Your task to perform on an android device: turn off notifications settings in the gmail app Image 0: 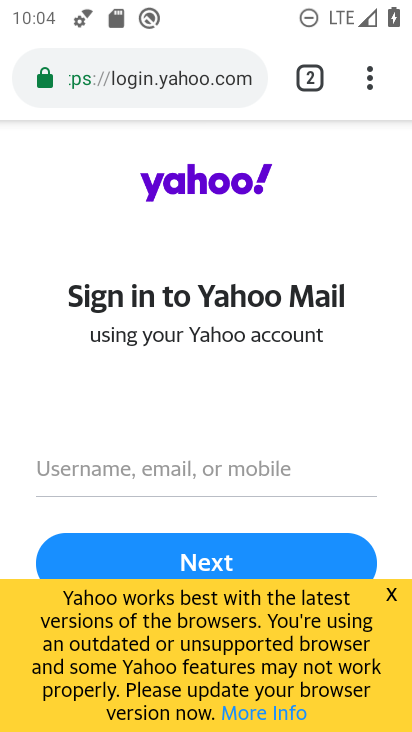
Step 0: press home button
Your task to perform on an android device: turn off notifications settings in the gmail app Image 1: 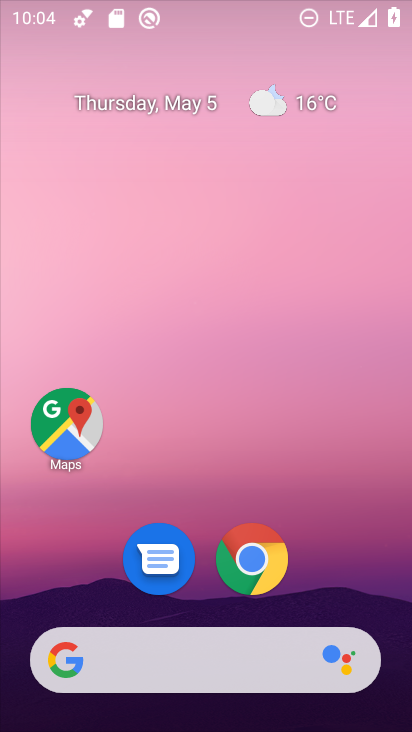
Step 1: drag from (391, 631) to (266, 76)
Your task to perform on an android device: turn off notifications settings in the gmail app Image 2: 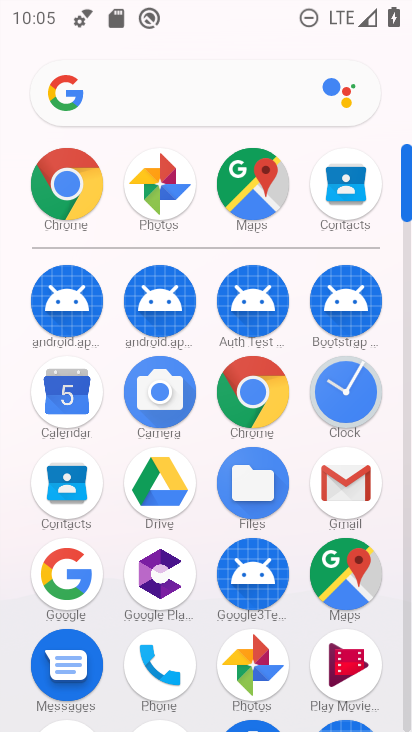
Step 2: click (371, 485)
Your task to perform on an android device: turn off notifications settings in the gmail app Image 3: 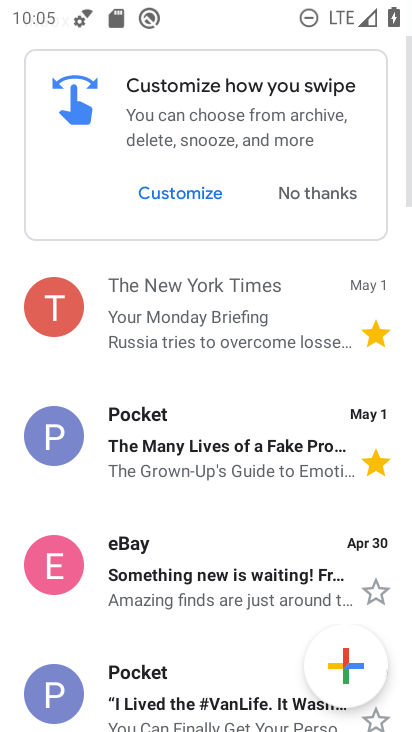
Step 3: drag from (130, 124) to (101, 621)
Your task to perform on an android device: turn off notifications settings in the gmail app Image 4: 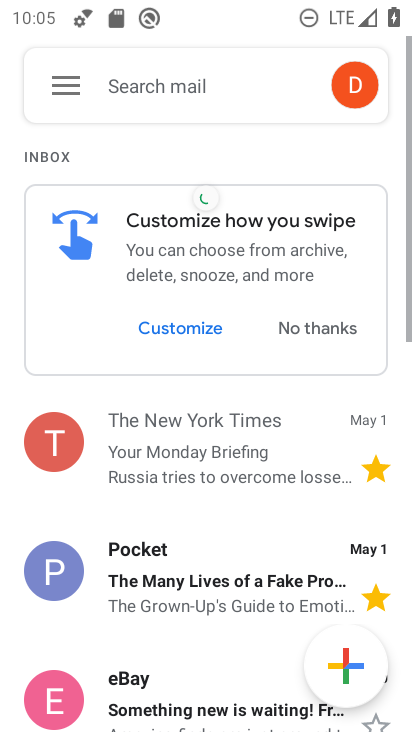
Step 4: click (52, 80)
Your task to perform on an android device: turn off notifications settings in the gmail app Image 5: 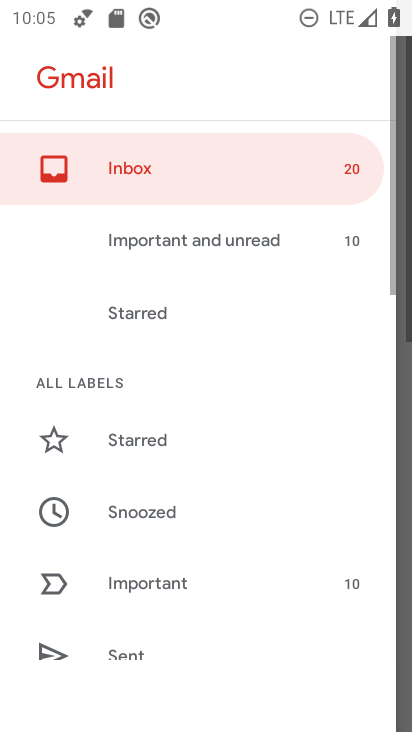
Step 5: drag from (166, 604) to (214, 71)
Your task to perform on an android device: turn off notifications settings in the gmail app Image 6: 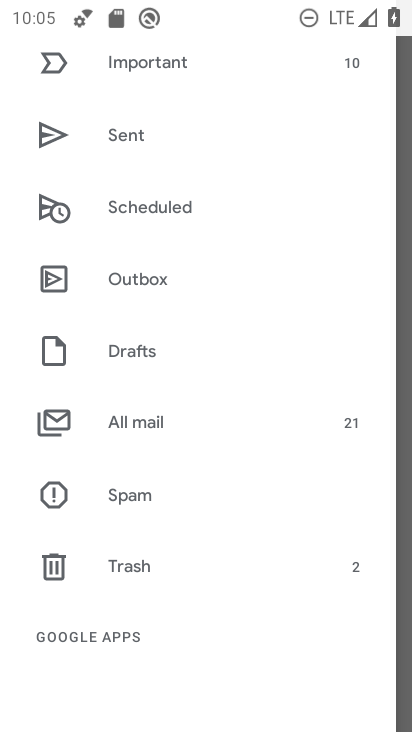
Step 6: drag from (160, 580) to (218, 93)
Your task to perform on an android device: turn off notifications settings in the gmail app Image 7: 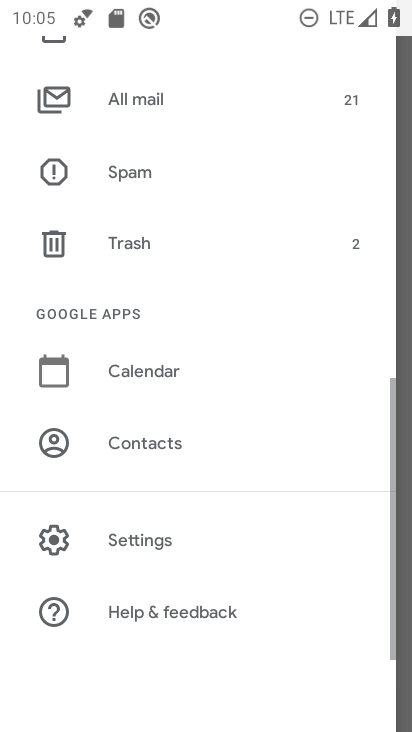
Step 7: click (152, 552)
Your task to perform on an android device: turn off notifications settings in the gmail app Image 8: 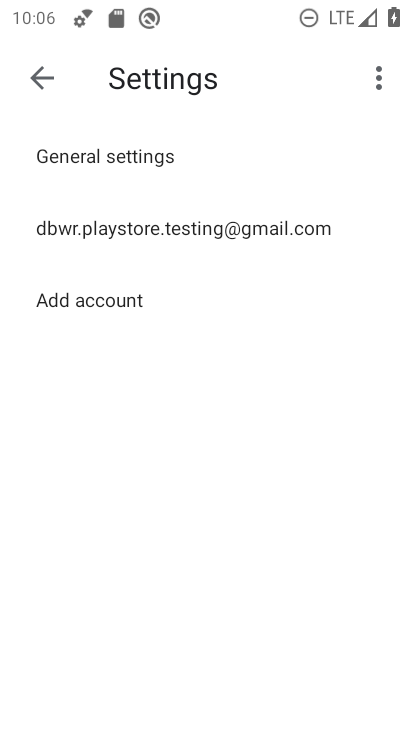
Step 8: click (136, 232)
Your task to perform on an android device: turn off notifications settings in the gmail app Image 9: 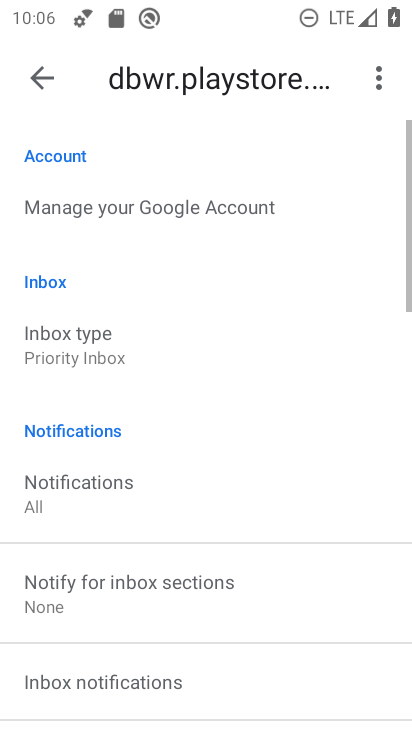
Step 9: click (149, 510)
Your task to perform on an android device: turn off notifications settings in the gmail app Image 10: 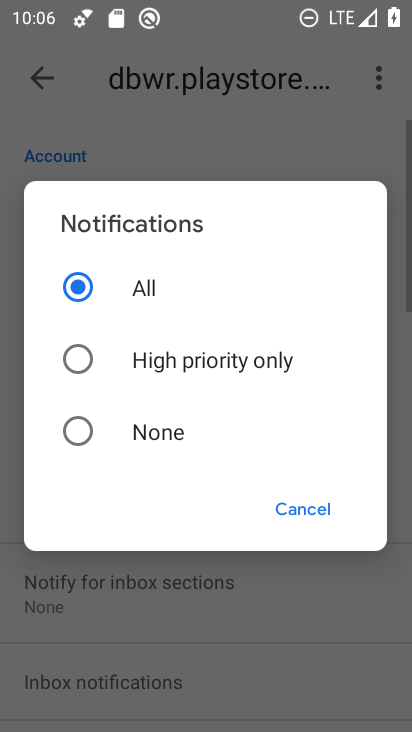
Step 10: click (133, 417)
Your task to perform on an android device: turn off notifications settings in the gmail app Image 11: 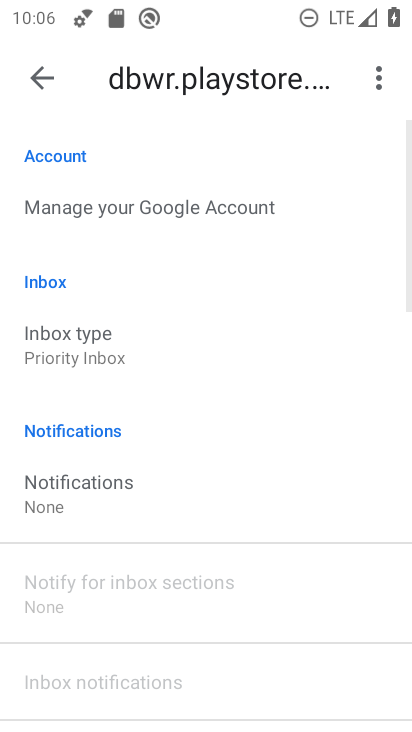
Step 11: task complete